Your task to perform on an android device: toggle translation in the chrome app Image 0: 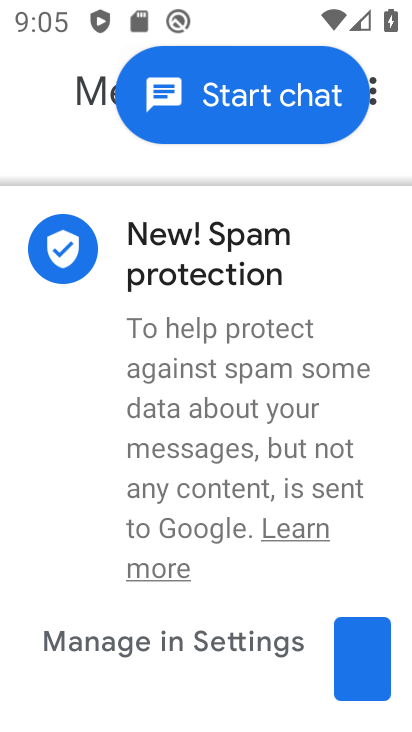
Step 0: press home button
Your task to perform on an android device: toggle translation in the chrome app Image 1: 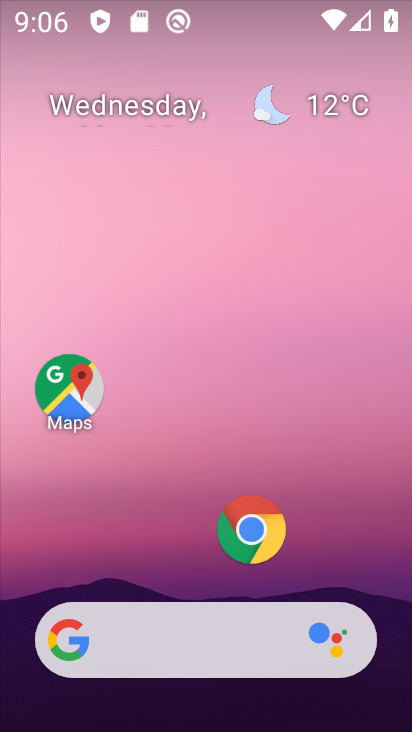
Step 1: click (246, 542)
Your task to perform on an android device: toggle translation in the chrome app Image 2: 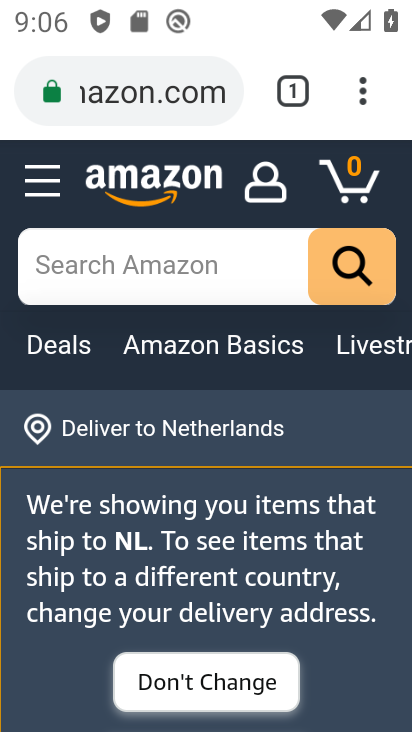
Step 2: click (367, 90)
Your task to perform on an android device: toggle translation in the chrome app Image 3: 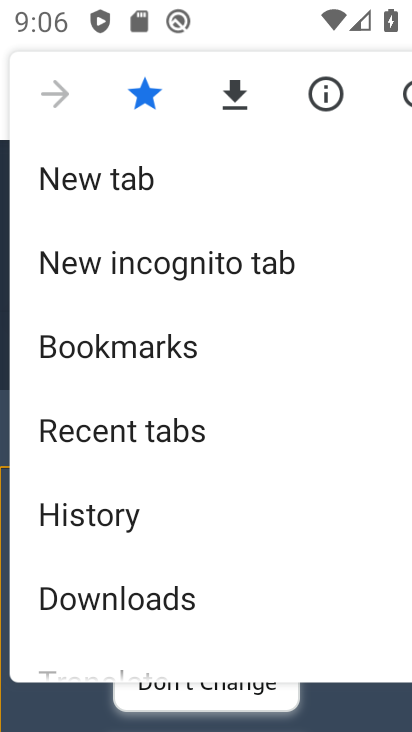
Step 3: drag from (123, 606) to (161, 308)
Your task to perform on an android device: toggle translation in the chrome app Image 4: 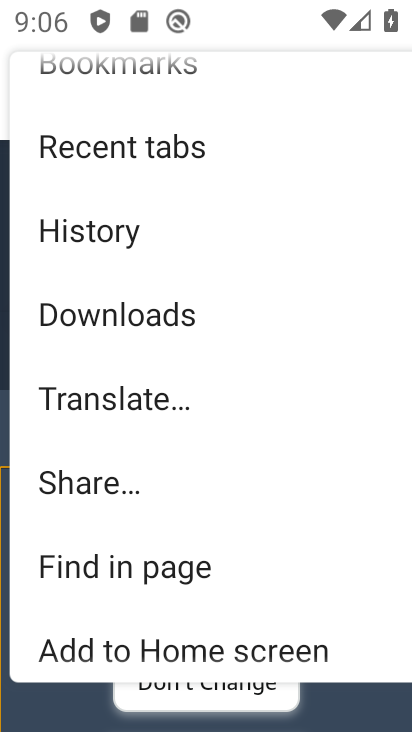
Step 4: drag from (167, 609) to (170, 264)
Your task to perform on an android device: toggle translation in the chrome app Image 5: 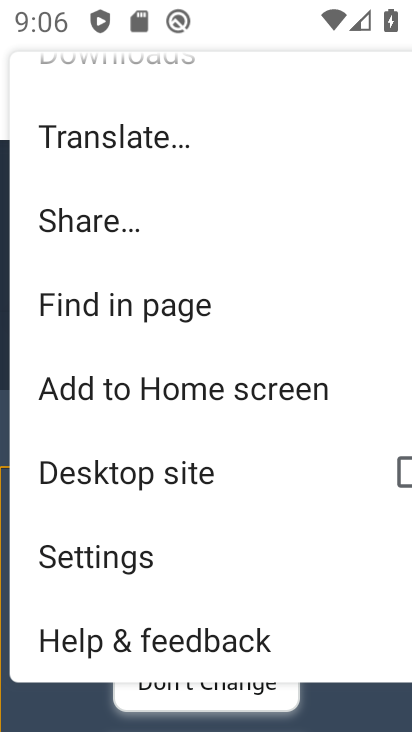
Step 5: click (134, 568)
Your task to perform on an android device: toggle translation in the chrome app Image 6: 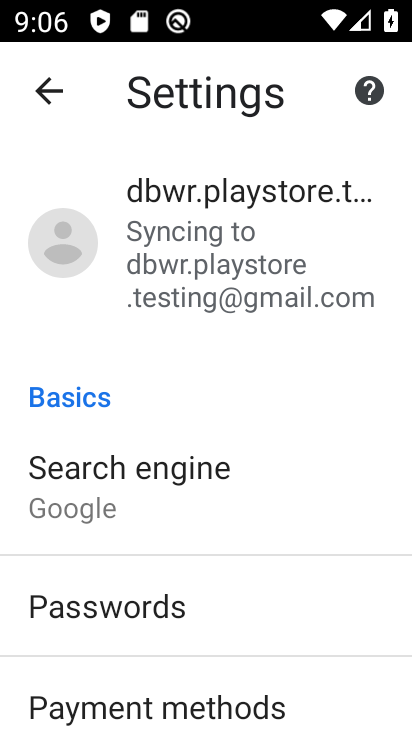
Step 6: drag from (198, 692) to (240, 302)
Your task to perform on an android device: toggle translation in the chrome app Image 7: 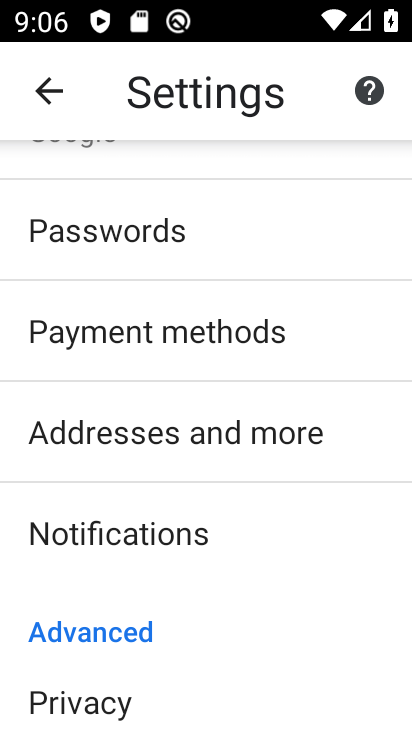
Step 7: drag from (210, 662) to (203, 282)
Your task to perform on an android device: toggle translation in the chrome app Image 8: 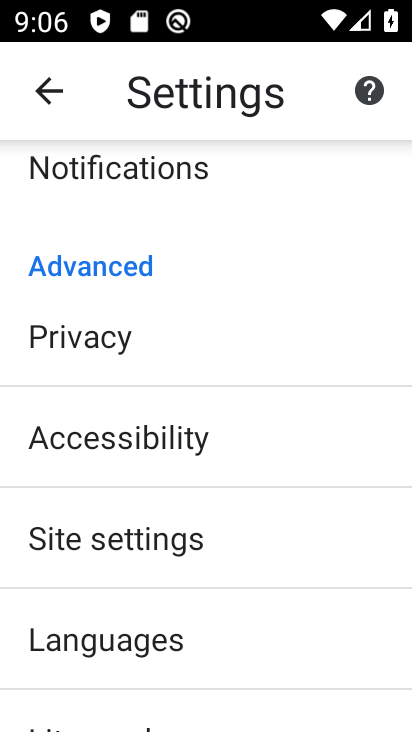
Step 8: click (147, 645)
Your task to perform on an android device: toggle translation in the chrome app Image 9: 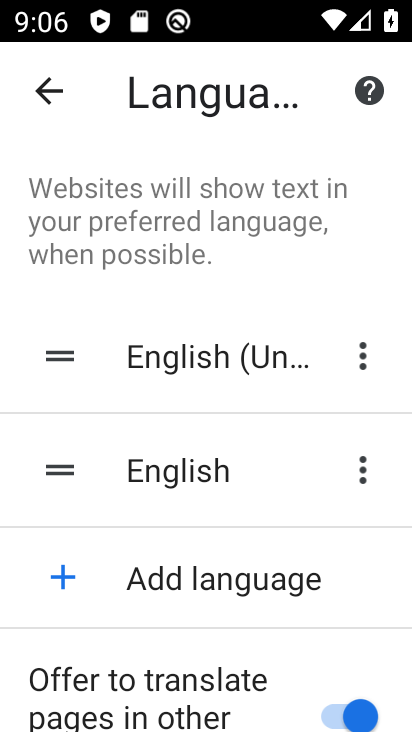
Step 9: drag from (240, 683) to (240, 384)
Your task to perform on an android device: toggle translation in the chrome app Image 10: 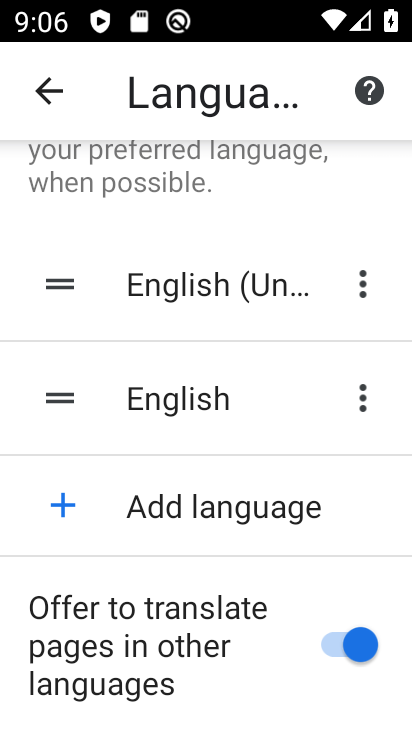
Step 10: click (332, 647)
Your task to perform on an android device: toggle translation in the chrome app Image 11: 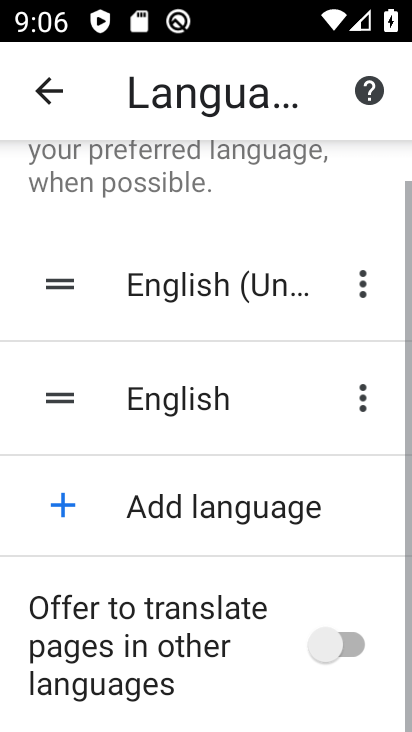
Step 11: task complete